Your task to perform on an android device: Open Amazon Image 0: 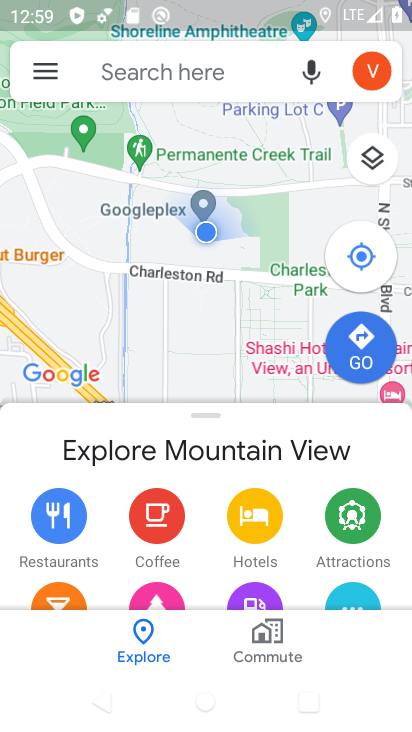
Step 0: press home button
Your task to perform on an android device: Open Amazon Image 1: 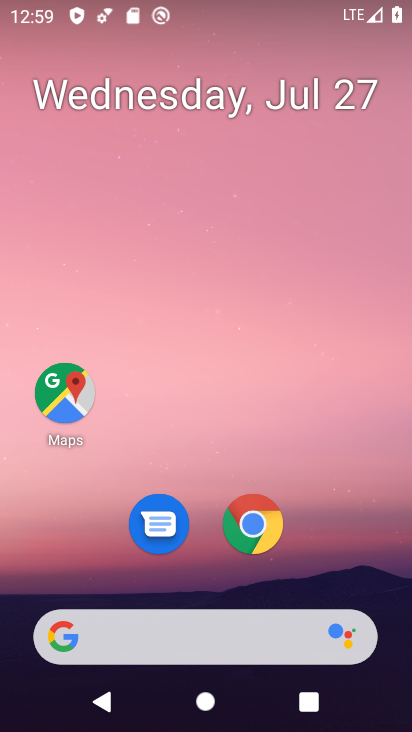
Step 1: click (265, 517)
Your task to perform on an android device: Open Amazon Image 2: 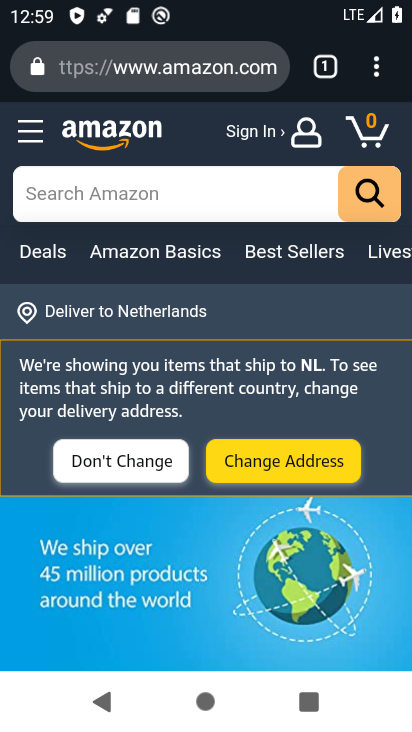
Step 2: task complete